Your task to perform on an android device: Show the shopping cart on amazon.com. Image 0: 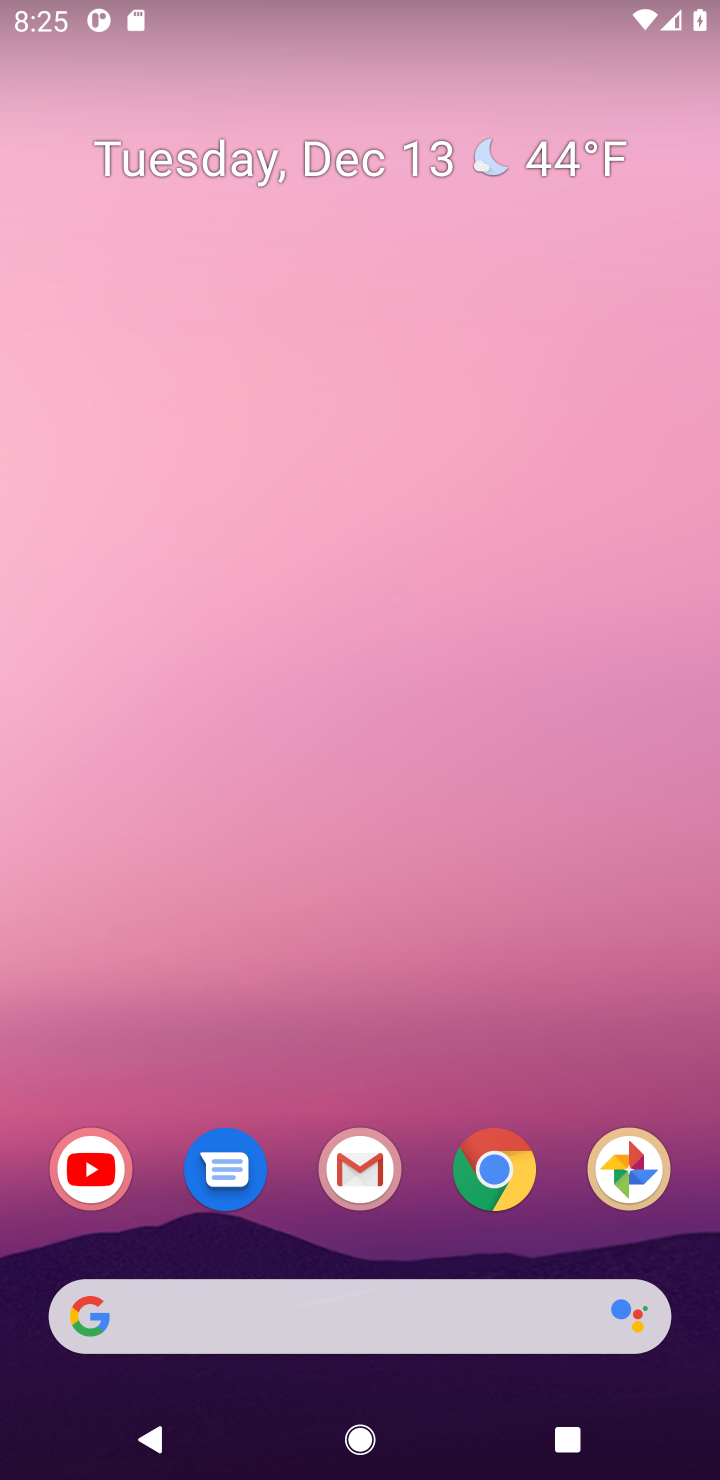
Step 0: click (498, 1213)
Your task to perform on an android device: Show the shopping cart on amazon.com. Image 1: 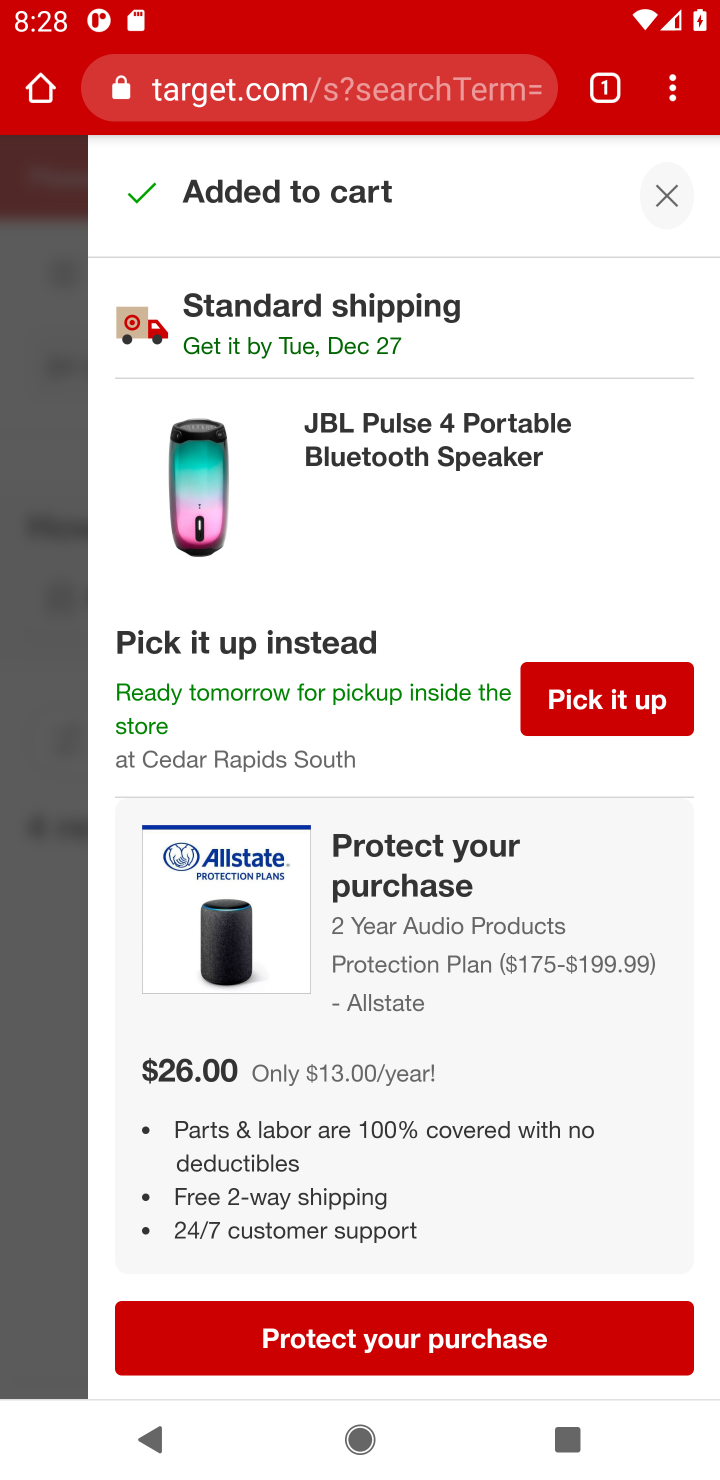
Step 1: task complete